Your task to perform on an android device: turn off javascript in the chrome app Image 0: 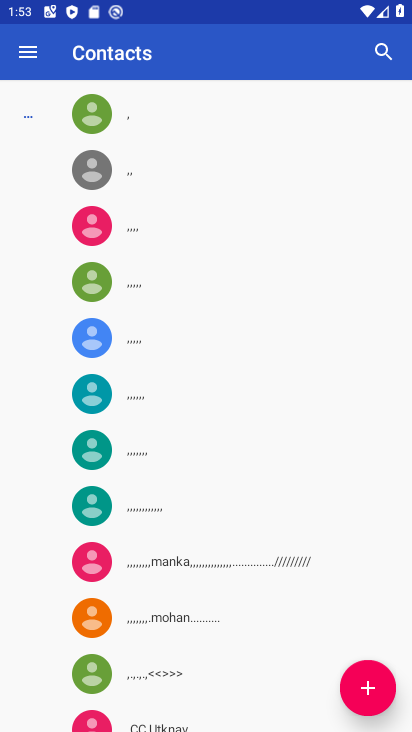
Step 0: press home button
Your task to perform on an android device: turn off javascript in the chrome app Image 1: 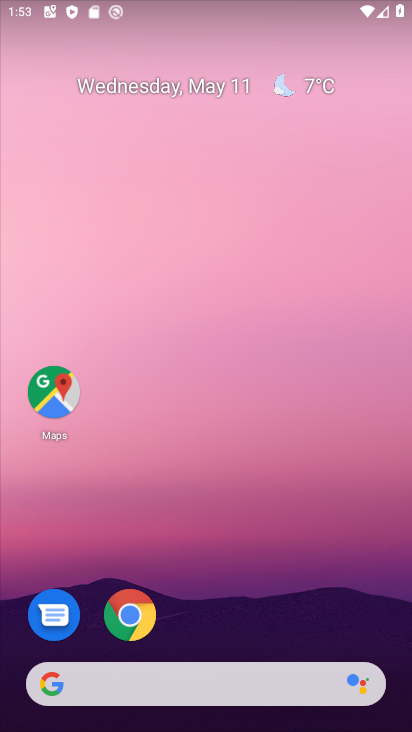
Step 1: click (131, 611)
Your task to perform on an android device: turn off javascript in the chrome app Image 2: 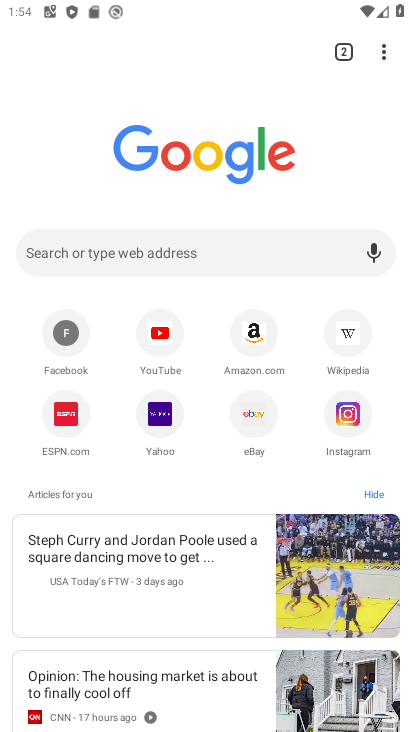
Step 2: drag from (392, 44) to (212, 440)
Your task to perform on an android device: turn off javascript in the chrome app Image 3: 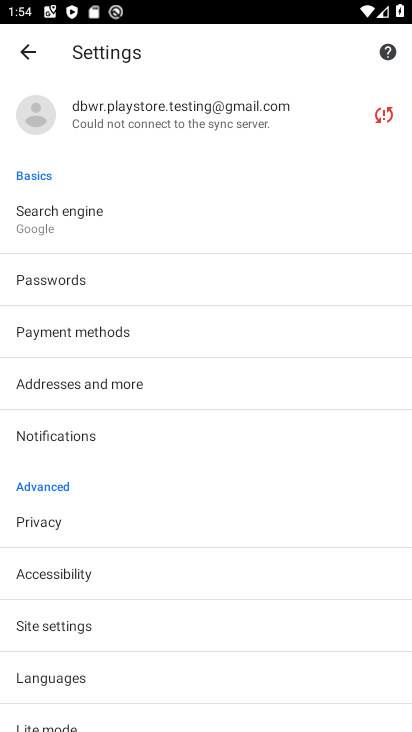
Step 3: click (95, 621)
Your task to perform on an android device: turn off javascript in the chrome app Image 4: 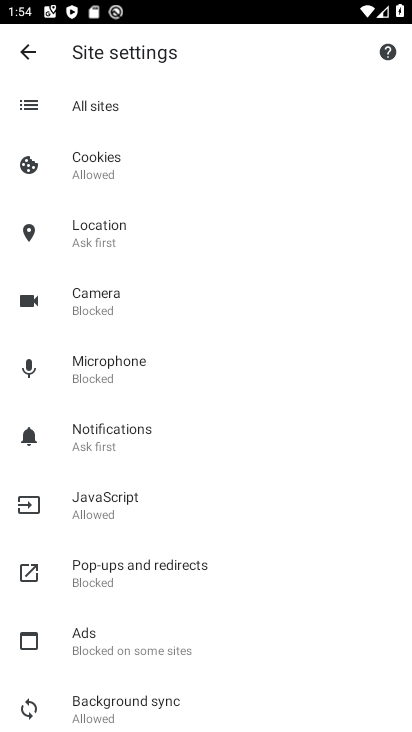
Step 4: click (118, 500)
Your task to perform on an android device: turn off javascript in the chrome app Image 5: 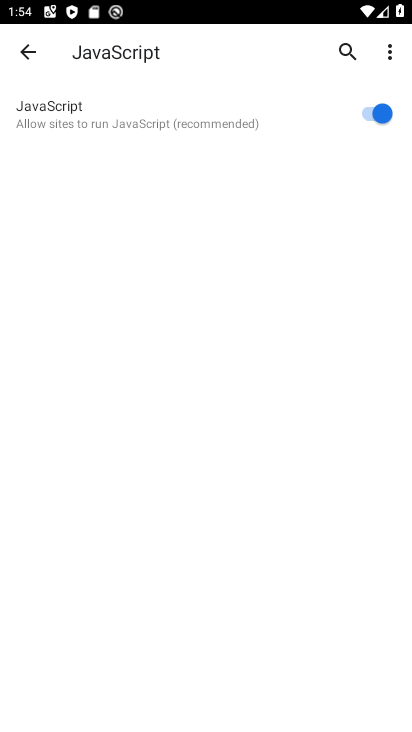
Step 5: click (358, 94)
Your task to perform on an android device: turn off javascript in the chrome app Image 6: 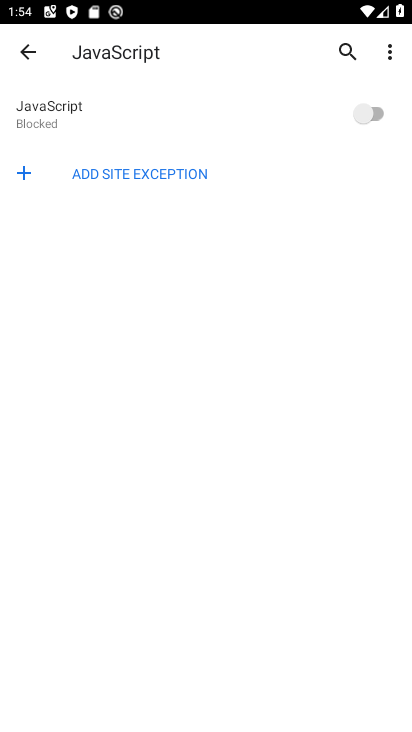
Step 6: task complete